Your task to perform on an android device: Open settings Image 0: 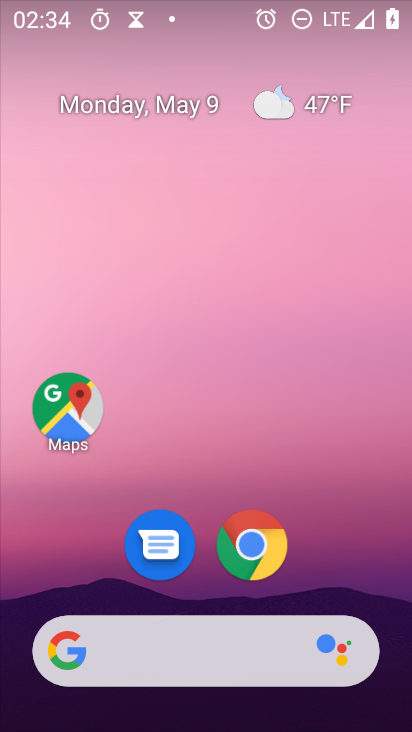
Step 0: drag from (317, 608) to (369, 19)
Your task to perform on an android device: Open settings Image 1: 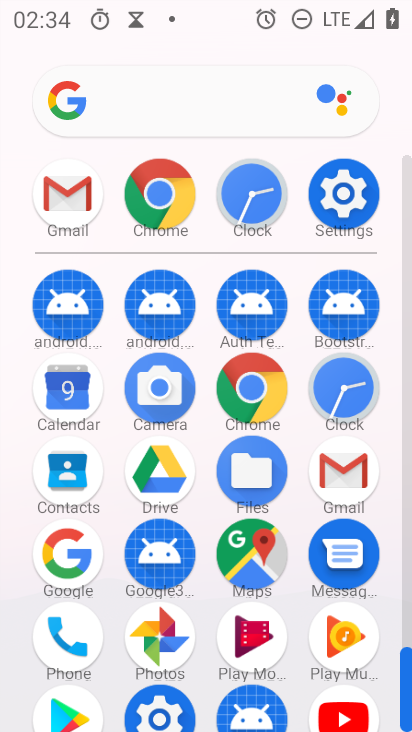
Step 1: click (336, 175)
Your task to perform on an android device: Open settings Image 2: 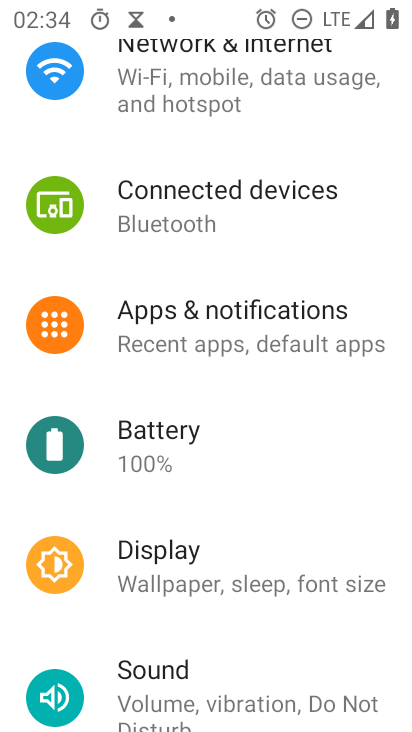
Step 2: task complete